Your task to perform on an android device: Do I have any events this weekend? Image 0: 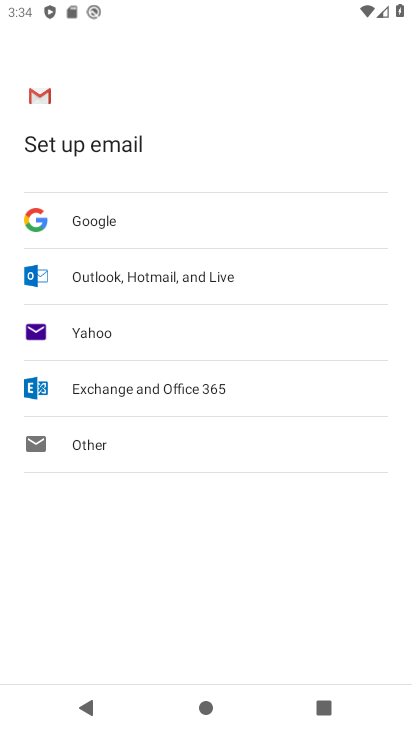
Step 0: press home button
Your task to perform on an android device: Do I have any events this weekend? Image 1: 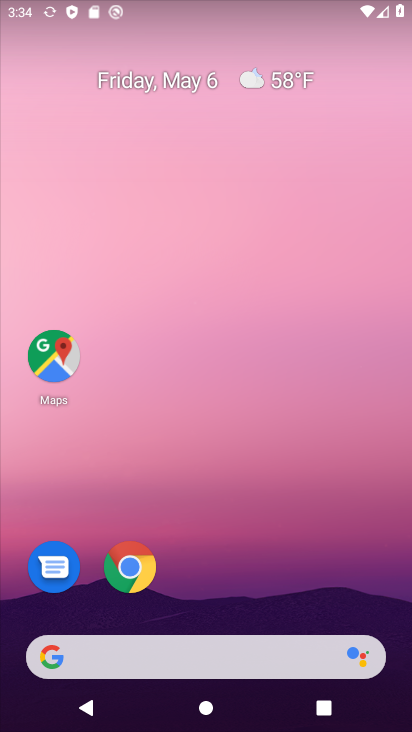
Step 1: drag from (147, 654) to (126, 129)
Your task to perform on an android device: Do I have any events this weekend? Image 2: 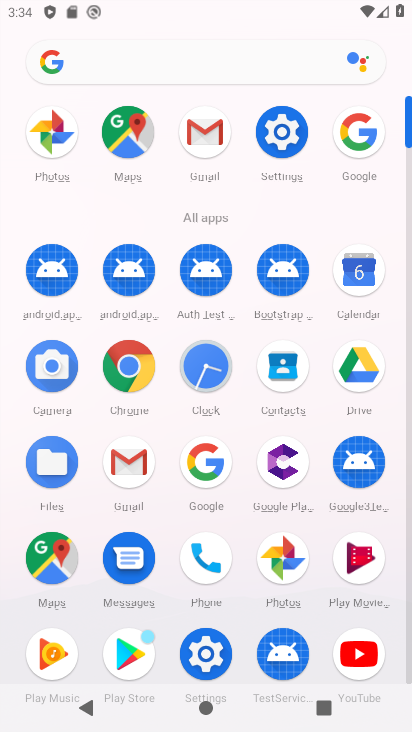
Step 2: click (357, 276)
Your task to perform on an android device: Do I have any events this weekend? Image 3: 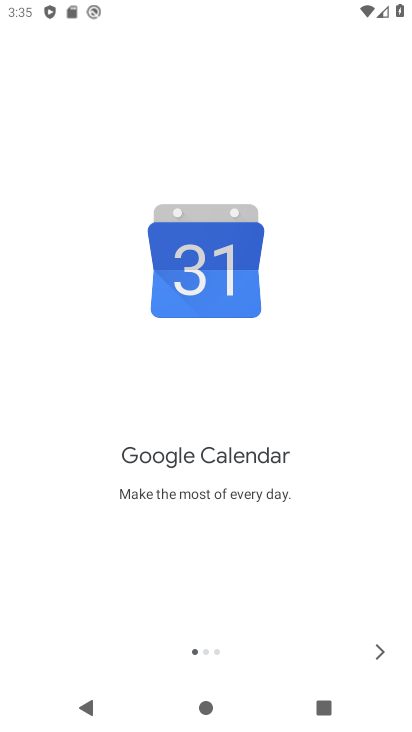
Step 3: click (384, 650)
Your task to perform on an android device: Do I have any events this weekend? Image 4: 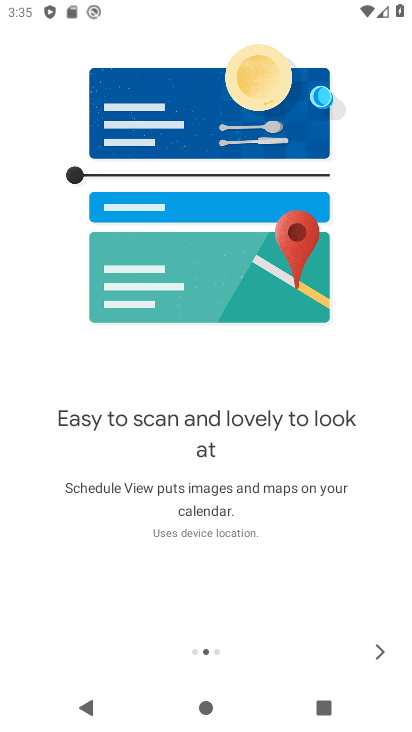
Step 4: click (384, 650)
Your task to perform on an android device: Do I have any events this weekend? Image 5: 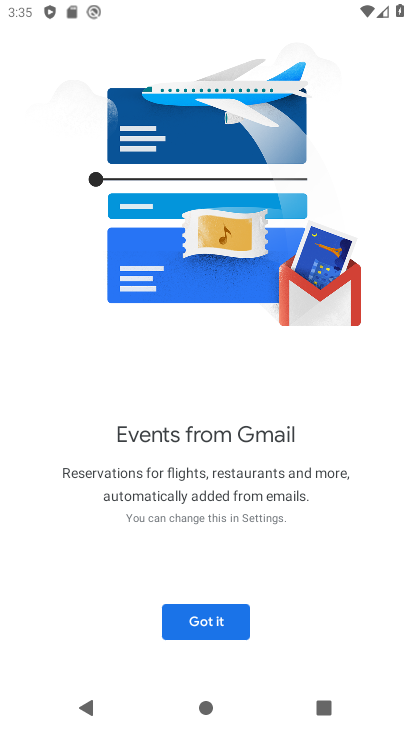
Step 5: click (225, 618)
Your task to perform on an android device: Do I have any events this weekend? Image 6: 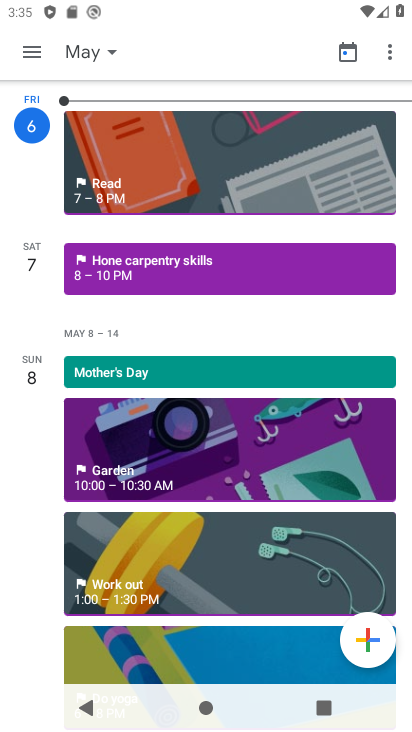
Step 6: click (38, 49)
Your task to perform on an android device: Do I have any events this weekend? Image 7: 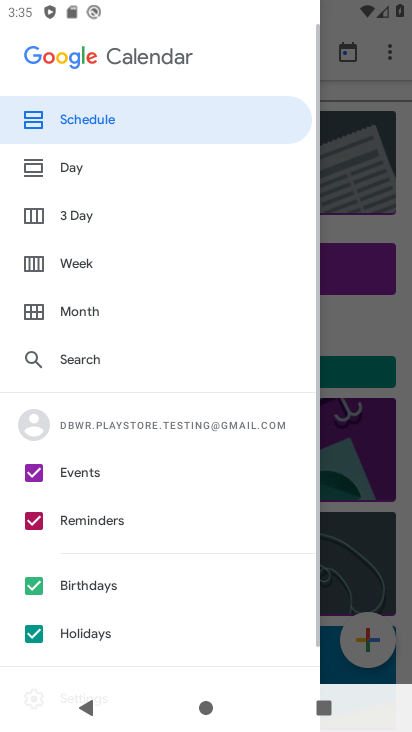
Step 7: click (105, 263)
Your task to perform on an android device: Do I have any events this weekend? Image 8: 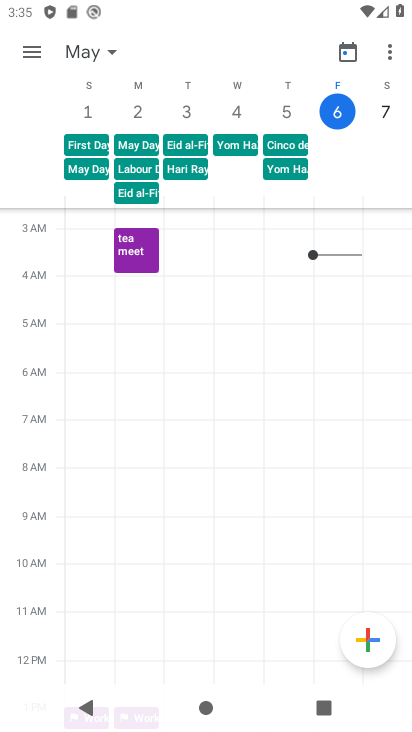
Step 8: task complete